Your task to perform on an android device: check battery use Image 0: 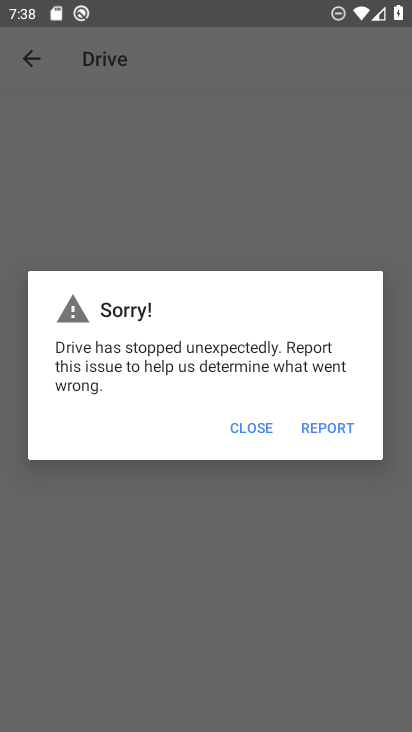
Step 0: press home button
Your task to perform on an android device: check battery use Image 1: 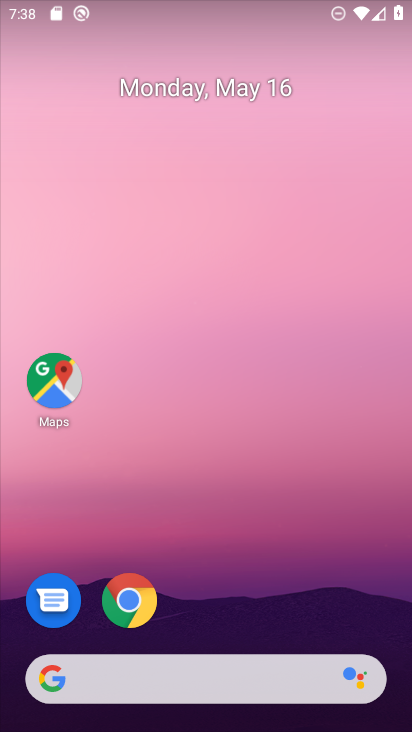
Step 1: drag from (183, 673) to (260, 129)
Your task to perform on an android device: check battery use Image 2: 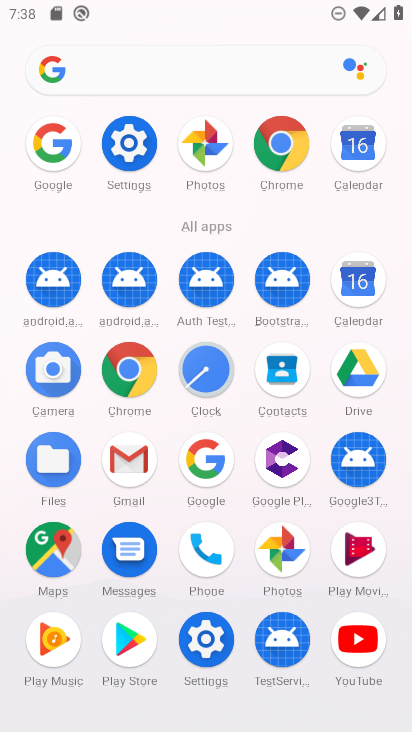
Step 2: click (138, 142)
Your task to perform on an android device: check battery use Image 3: 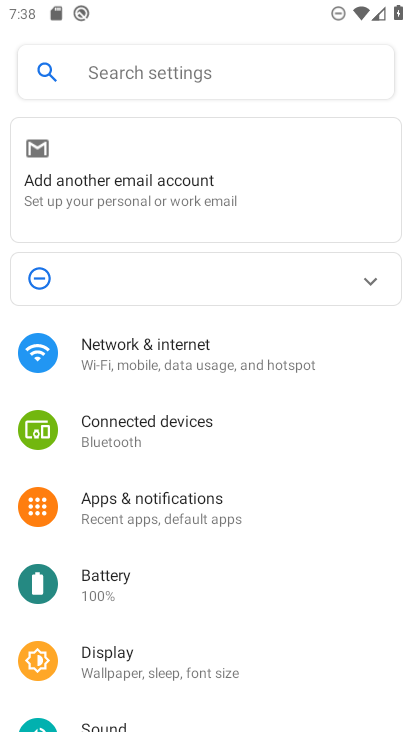
Step 3: drag from (226, 603) to (286, 359)
Your task to perform on an android device: check battery use Image 4: 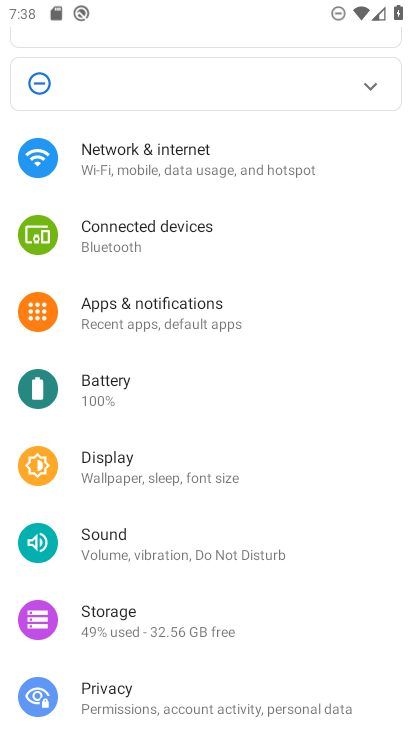
Step 4: click (105, 395)
Your task to perform on an android device: check battery use Image 5: 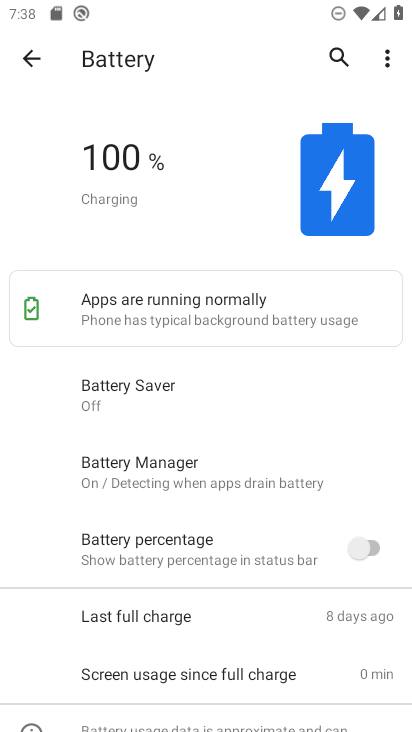
Step 5: click (386, 53)
Your task to perform on an android device: check battery use Image 6: 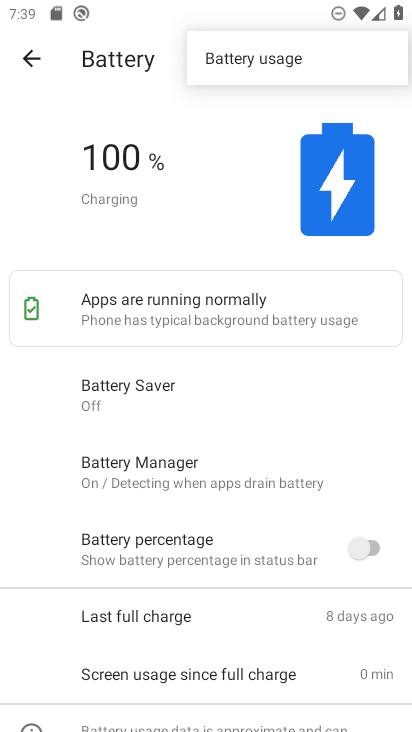
Step 6: click (296, 67)
Your task to perform on an android device: check battery use Image 7: 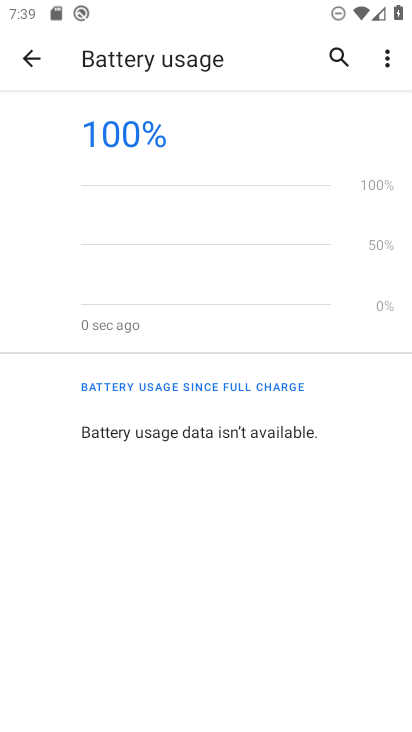
Step 7: task complete